Your task to perform on an android device: Open eBay Image 0: 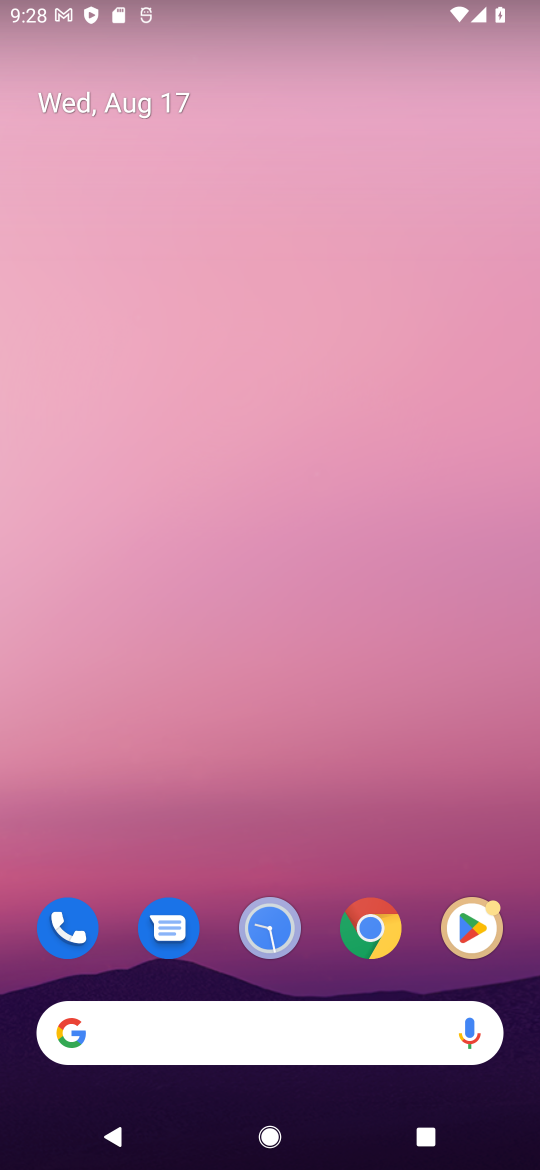
Step 0: click (371, 918)
Your task to perform on an android device: Open eBay Image 1: 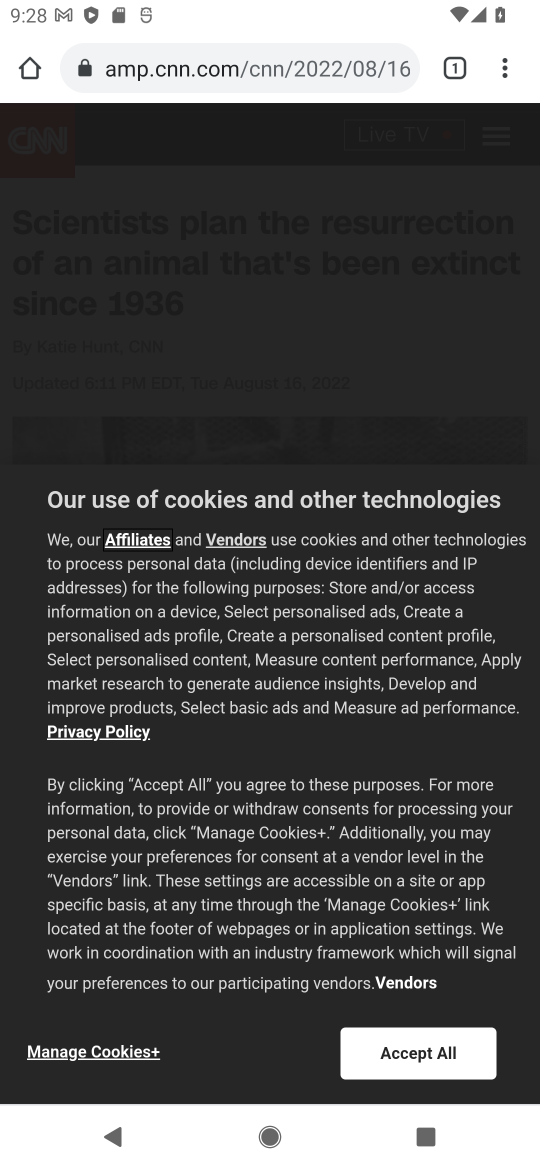
Step 1: click (364, 59)
Your task to perform on an android device: Open eBay Image 2: 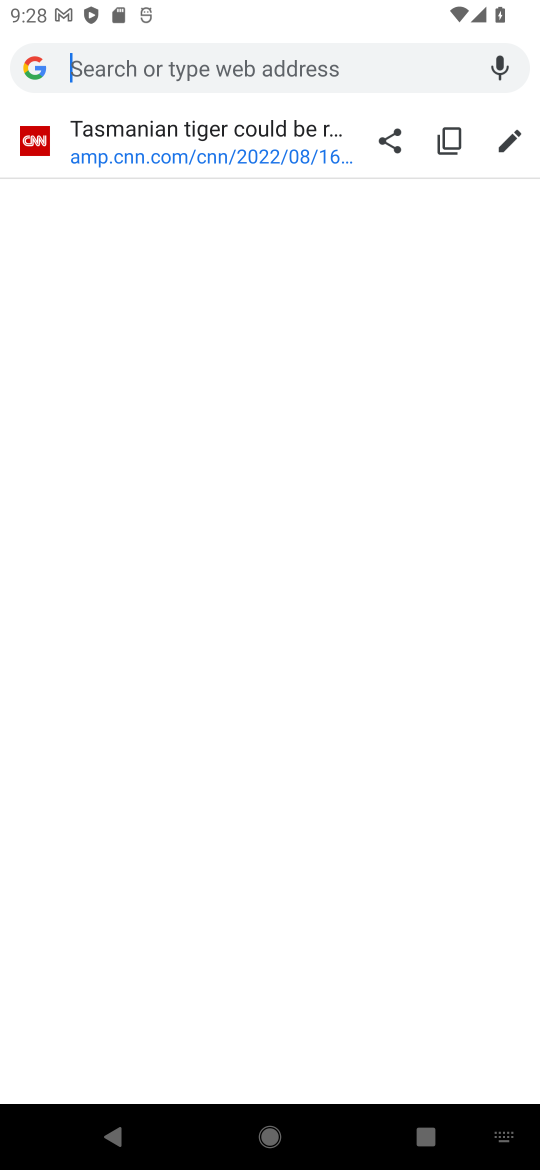
Step 2: type "ebay.com"
Your task to perform on an android device: Open eBay Image 3: 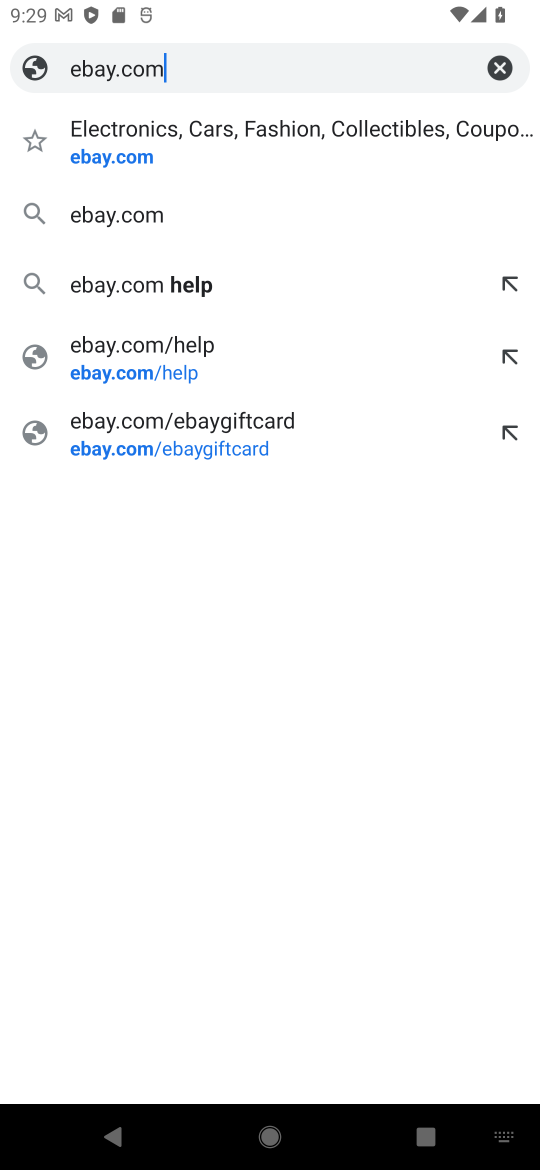
Step 3: click (116, 140)
Your task to perform on an android device: Open eBay Image 4: 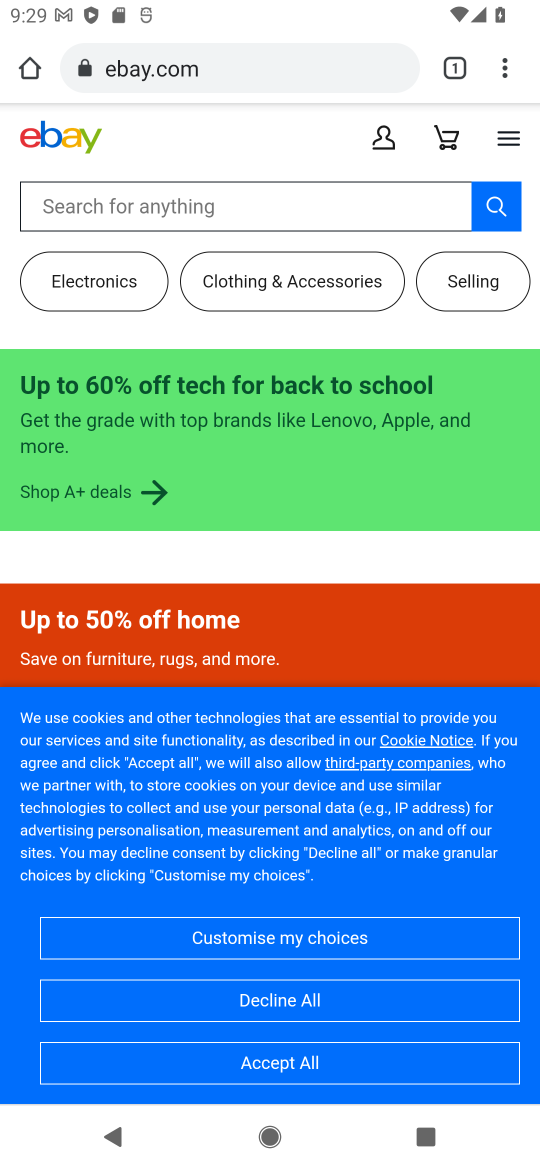
Step 4: task complete